Your task to perform on an android device: visit the assistant section in the google photos Image 0: 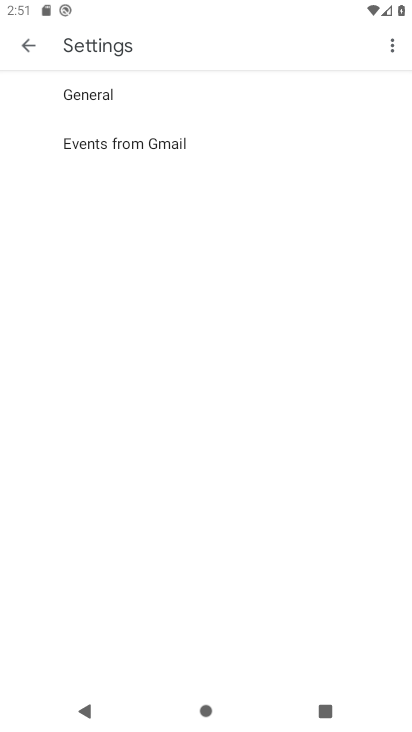
Step 0: press home button
Your task to perform on an android device: visit the assistant section in the google photos Image 1: 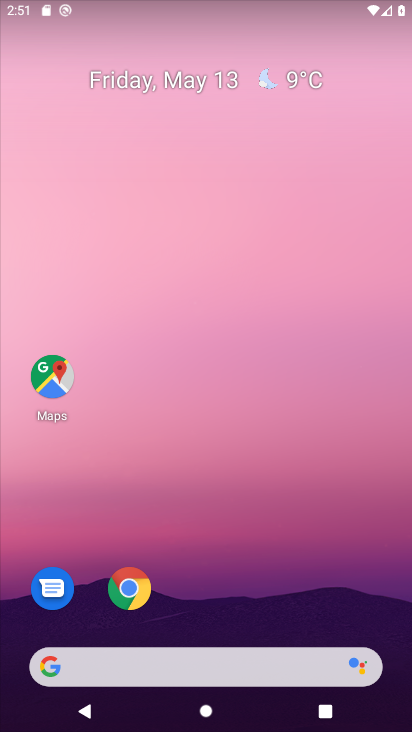
Step 1: drag from (307, 582) to (173, 97)
Your task to perform on an android device: visit the assistant section in the google photos Image 2: 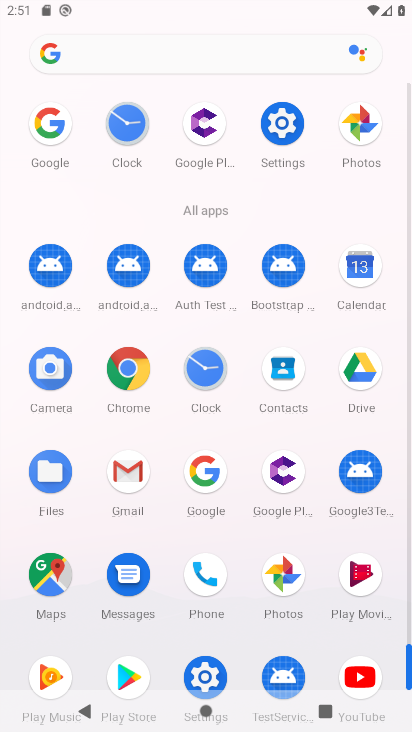
Step 2: click (287, 576)
Your task to perform on an android device: visit the assistant section in the google photos Image 3: 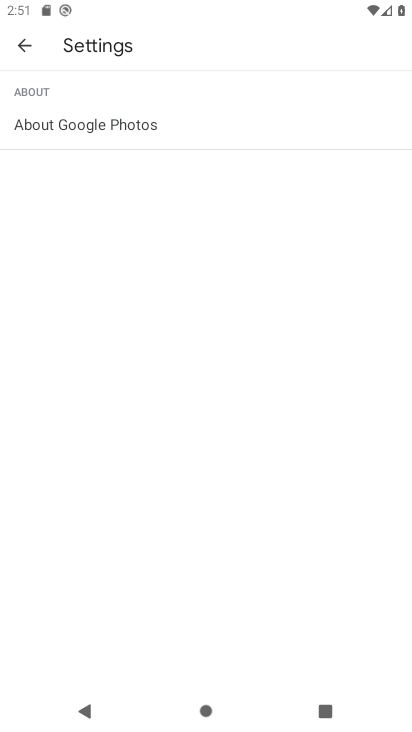
Step 3: click (22, 51)
Your task to perform on an android device: visit the assistant section in the google photos Image 4: 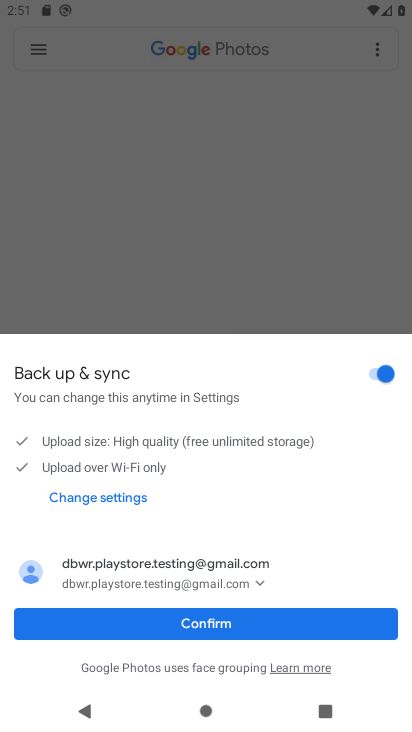
Step 4: click (220, 624)
Your task to perform on an android device: visit the assistant section in the google photos Image 5: 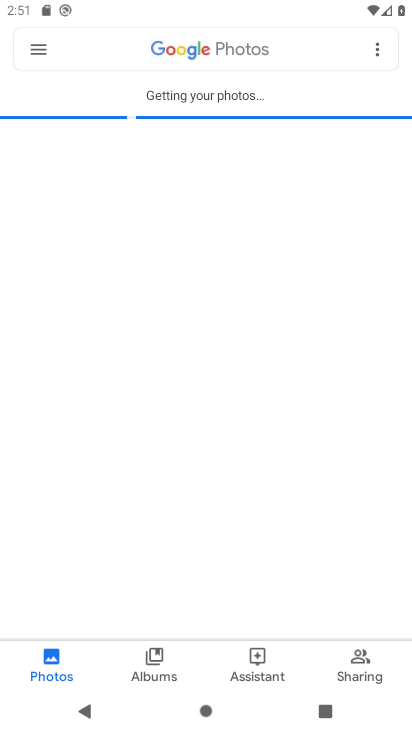
Step 5: click (271, 661)
Your task to perform on an android device: visit the assistant section in the google photos Image 6: 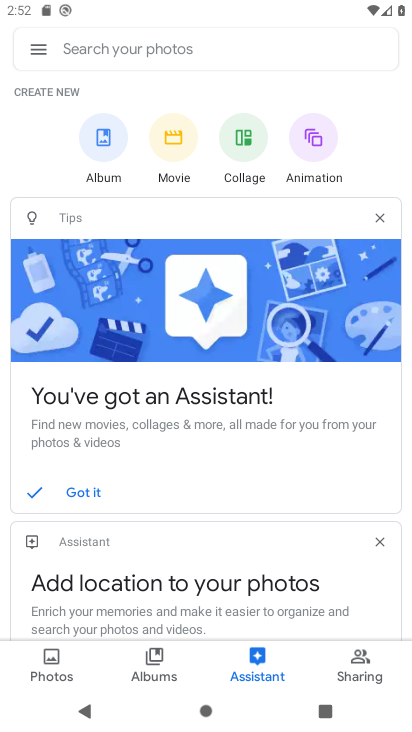
Step 6: task complete